Your task to perform on an android device: Go to Android settings Image 0: 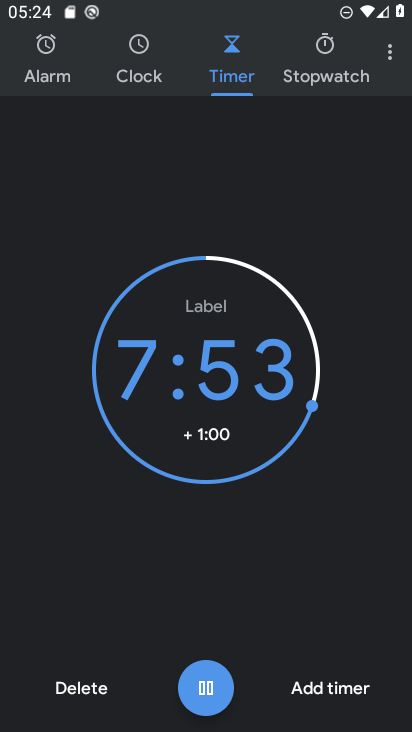
Step 0: press home button
Your task to perform on an android device: Go to Android settings Image 1: 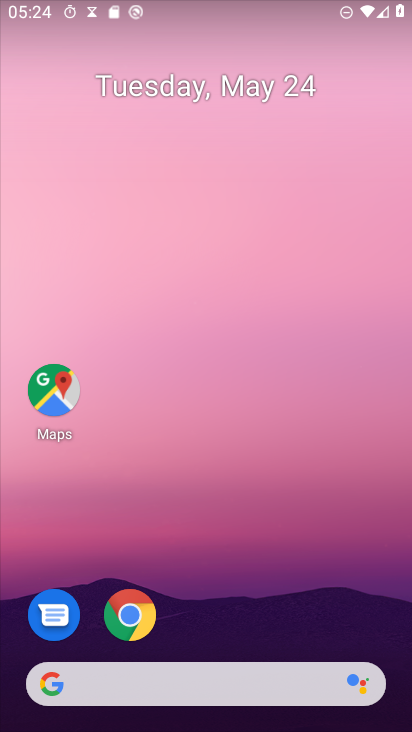
Step 1: drag from (216, 602) to (239, 115)
Your task to perform on an android device: Go to Android settings Image 2: 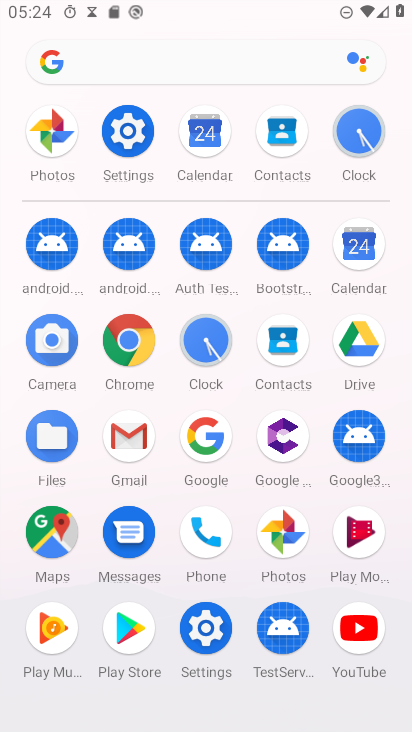
Step 2: click (128, 133)
Your task to perform on an android device: Go to Android settings Image 3: 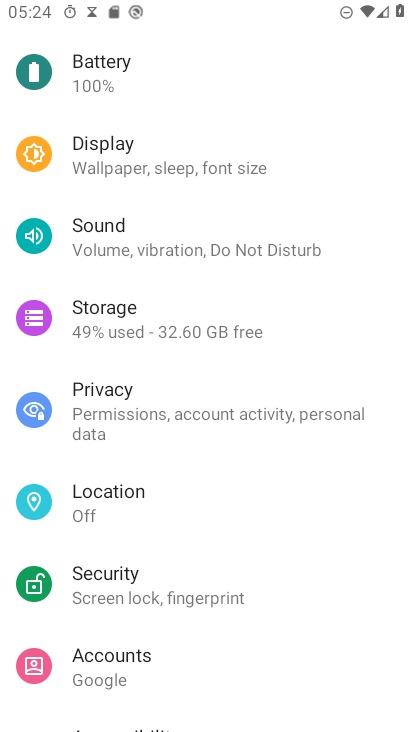
Step 3: drag from (189, 660) to (275, 30)
Your task to perform on an android device: Go to Android settings Image 4: 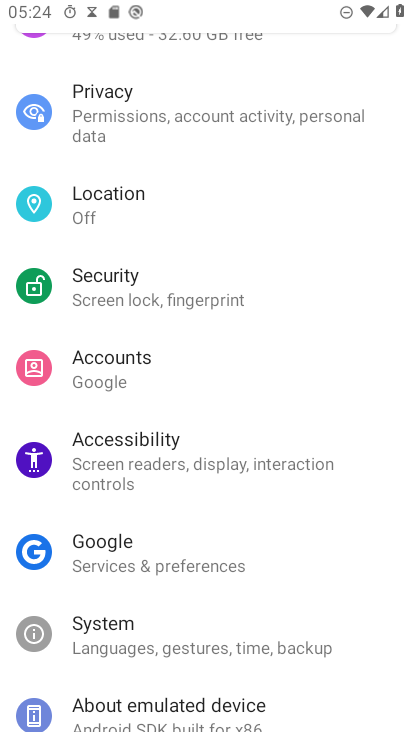
Step 4: click (120, 697)
Your task to perform on an android device: Go to Android settings Image 5: 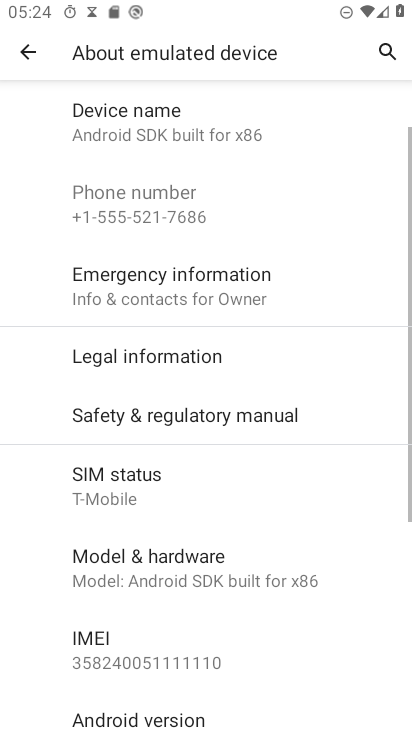
Step 5: task complete